Your task to perform on an android device: Go to accessibility settings Image 0: 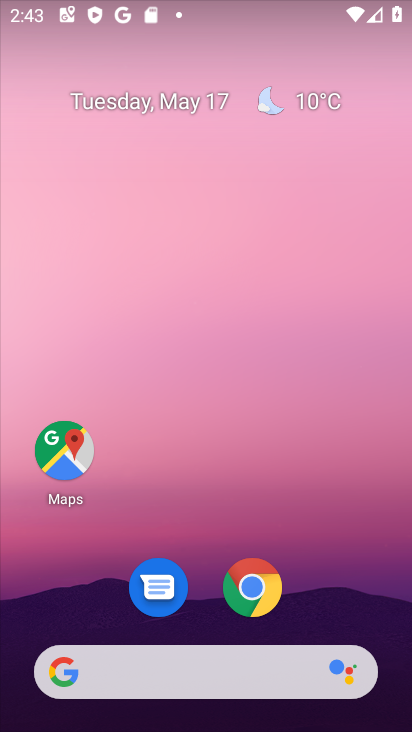
Step 0: drag from (367, 589) to (247, 13)
Your task to perform on an android device: Go to accessibility settings Image 1: 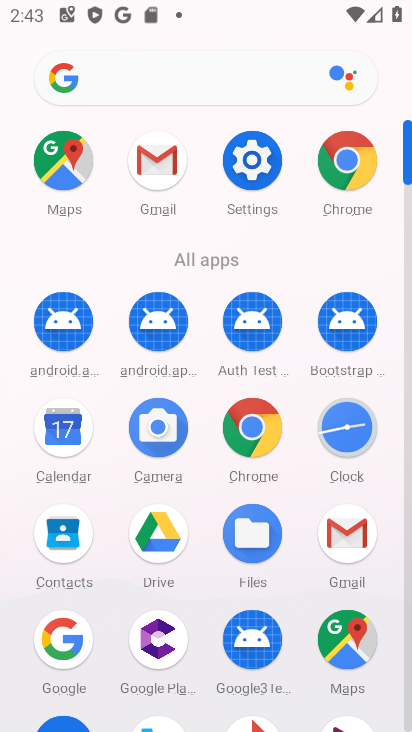
Step 1: drag from (13, 607) to (15, 341)
Your task to perform on an android device: Go to accessibility settings Image 2: 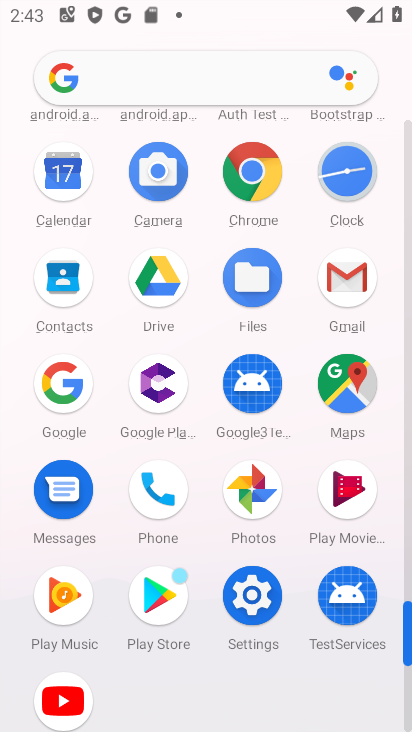
Step 2: click (254, 587)
Your task to perform on an android device: Go to accessibility settings Image 3: 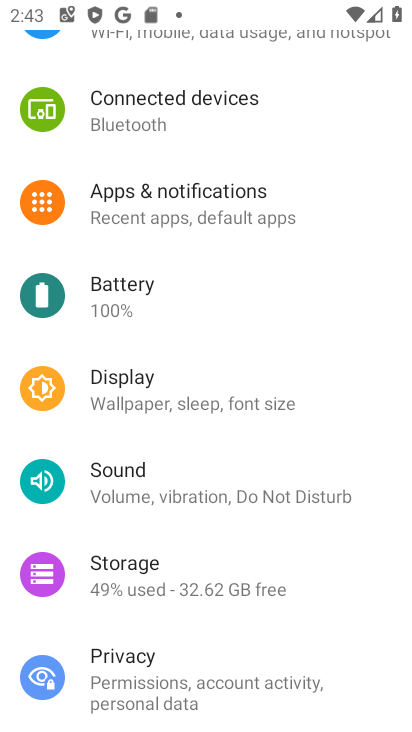
Step 3: drag from (267, 622) to (276, 156)
Your task to perform on an android device: Go to accessibility settings Image 4: 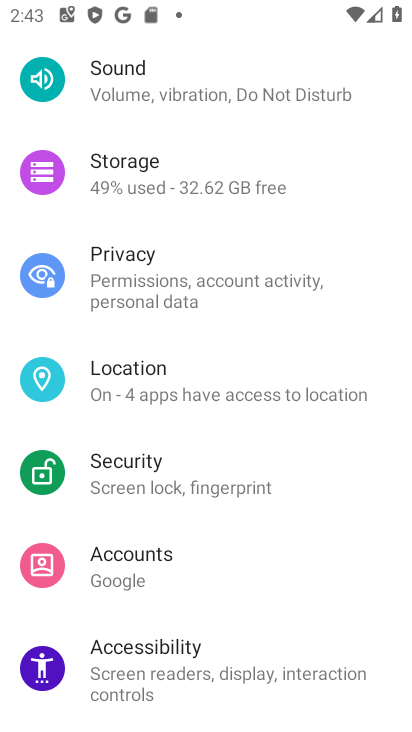
Step 4: drag from (269, 604) to (273, 225)
Your task to perform on an android device: Go to accessibility settings Image 5: 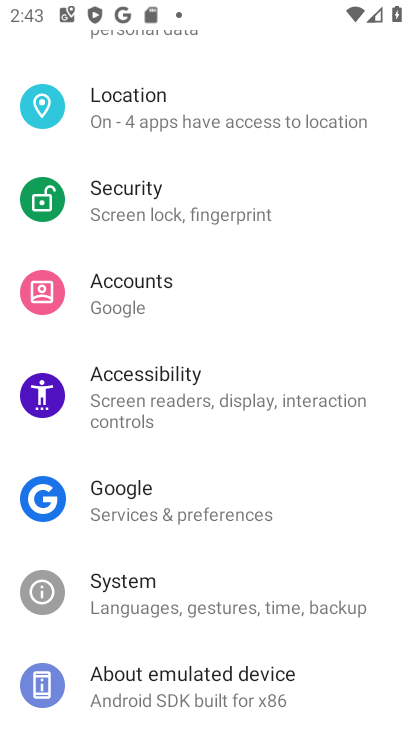
Step 5: click (195, 382)
Your task to perform on an android device: Go to accessibility settings Image 6: 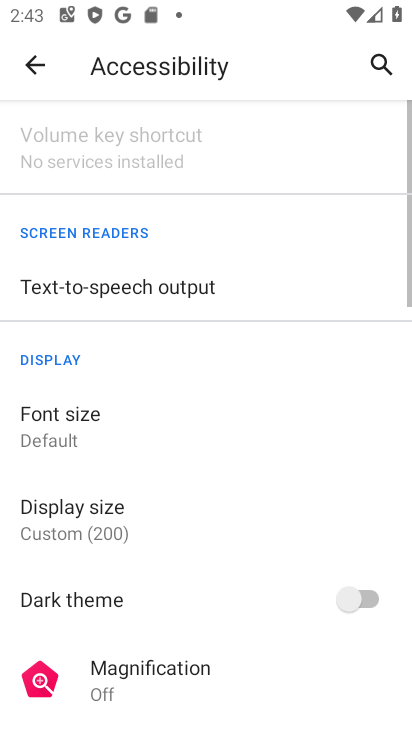
Step 6: task complete